Your task to perform on an android device: manage bookmarks in the chrome app Image 0: 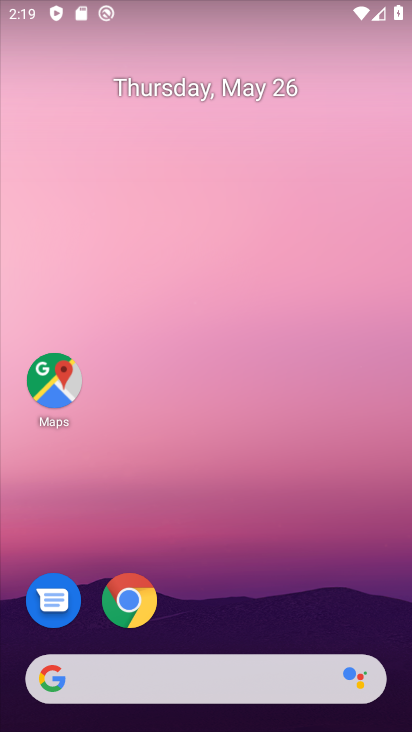
Step 0: drag from (231, 646) to (316, 236)
Your task to perform on an android device: manage bookmarks in the chrome app Image 1: 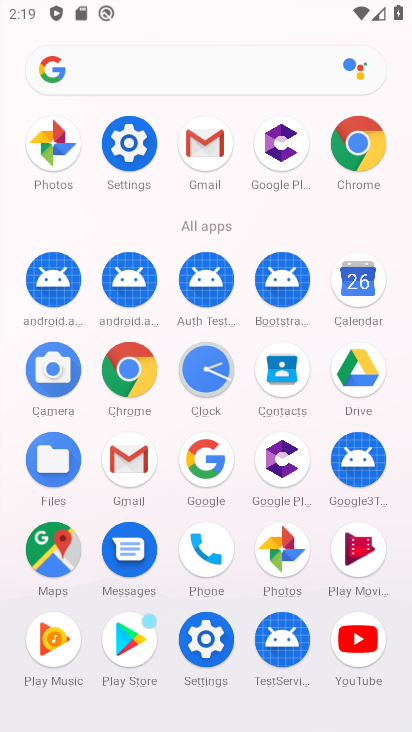
Step 1: click (133, 372)
Your task to perform on an android device: manage bookmarks in the chrome app Image 2: 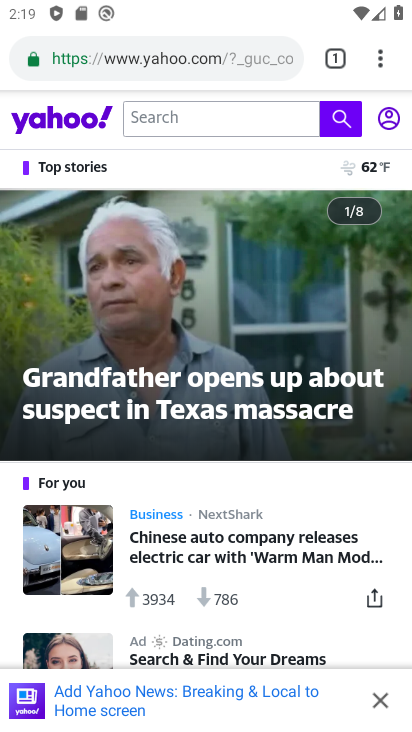
Step 2: task complete